Your task to perform on an android device: Open Youtube and go to "Your channel" Image 0: 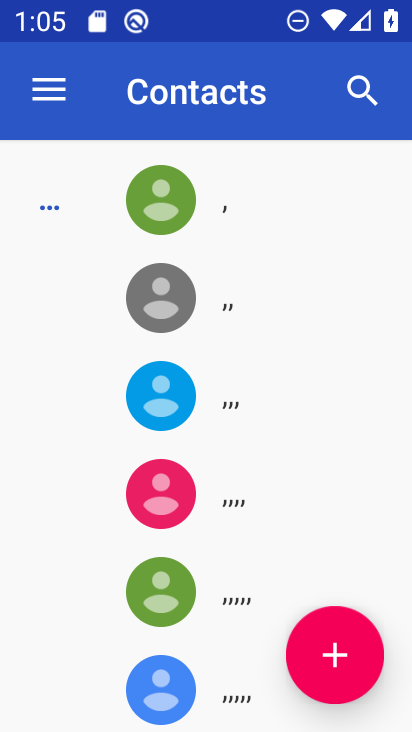
Step 0: press home button
Your task to perform on an android device: Open Youtube and go to "Your channel" Image 1: 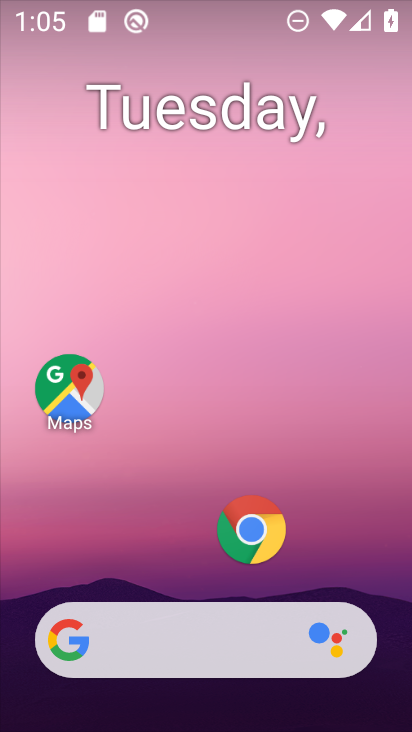
Step 1: drag from (219, 677) to (381, 267)
Your task to perform on an android device: Open Youtube and go to "Your channel" Image 2: 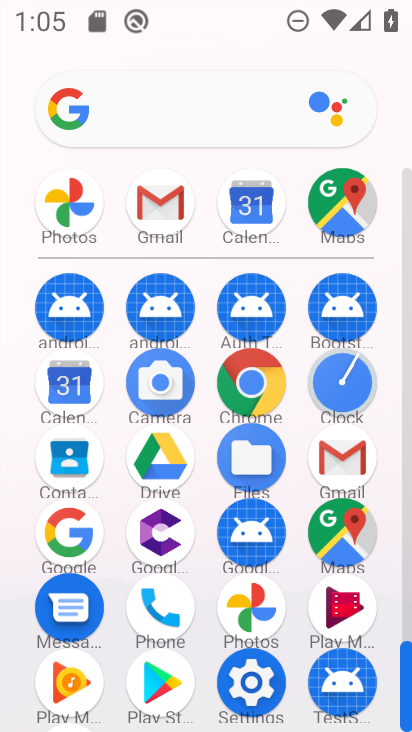
Step 2: drag from (205, 573) to (215, 379)
Your task to perform on an android device: Open Youtube and go to "Your channel" Image 3: 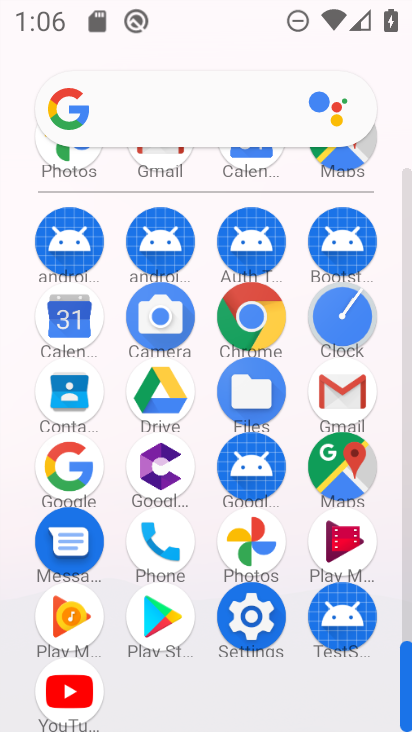
Step 3: click (61, 686)
Your task to perform on an android device: Open Youtube and go to "Your channel" Image 4: 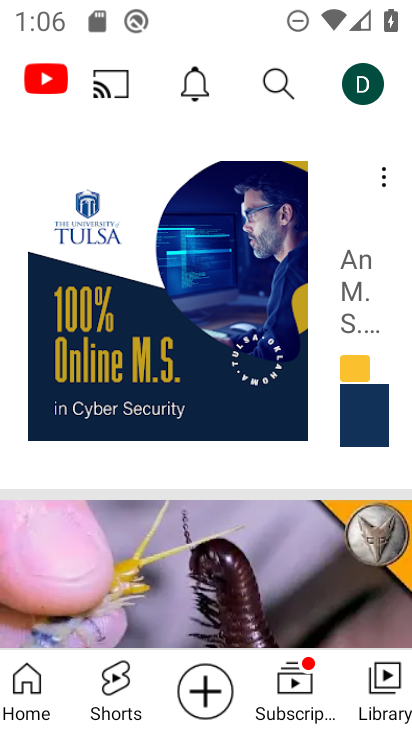
Step 4: click (367, 88)
Your task to perform on an android device: Open Youtube and go to "Your channel" Image 5: 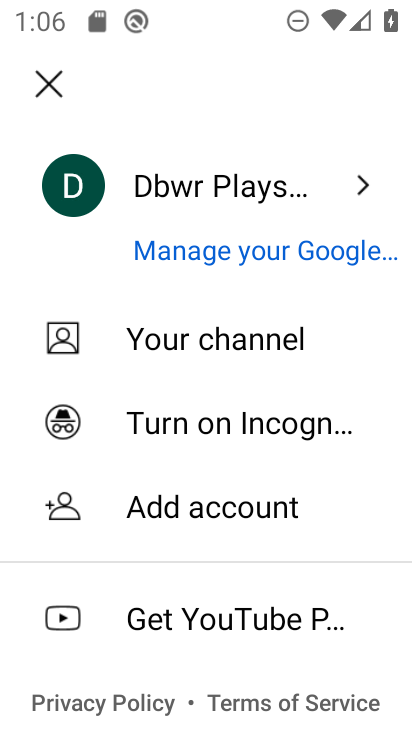
Step 5: click (157, 337)
Your task to perform on an android device: Open Youtube and go to "Your channel" Image 6: 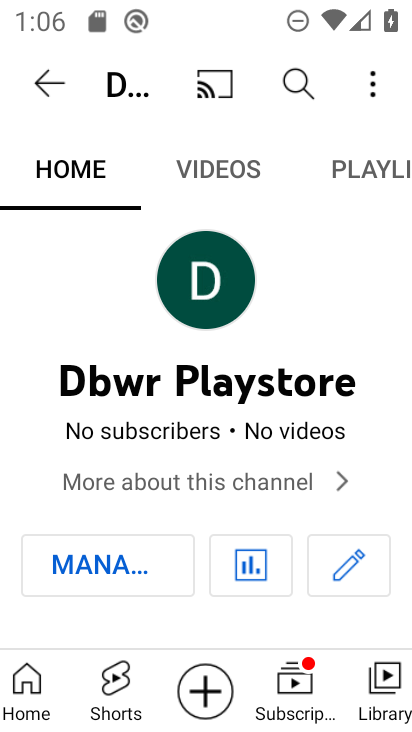
Step 6: task complete